Your task to perform on an android device: Open calendar and show me the third week of next month Image 0: 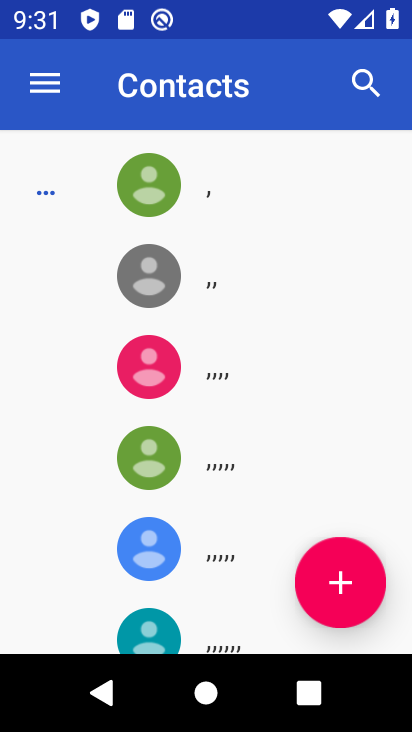
Step 0: press home button
Your task to perform on an android device: Open calendar and show me the third week of next month Image 1: 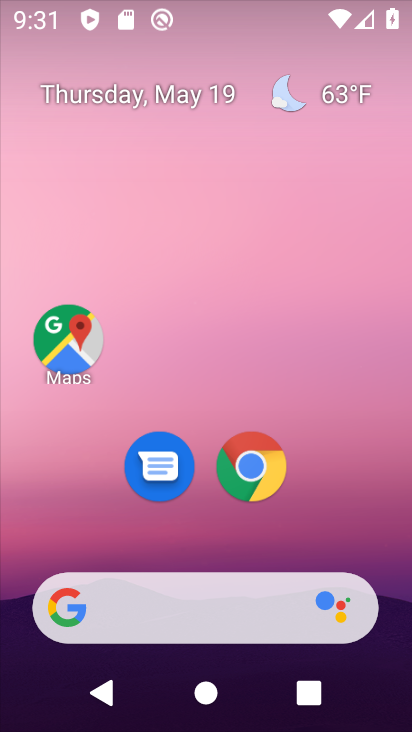
Step 1: drag from (392, 662) to (352, 123)
Your task to perform on an android device: Open calendar and show me the third week of next month Image 2: 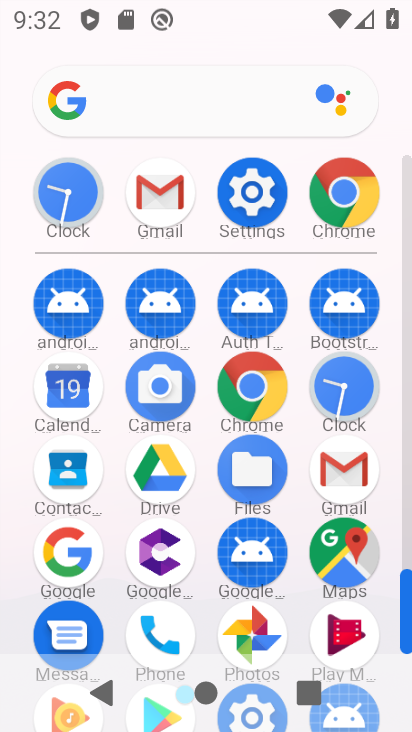
Step 2: click (71, 399)
Your task to perform on an android device: Open calendar and show me the third week of next month Image 3: 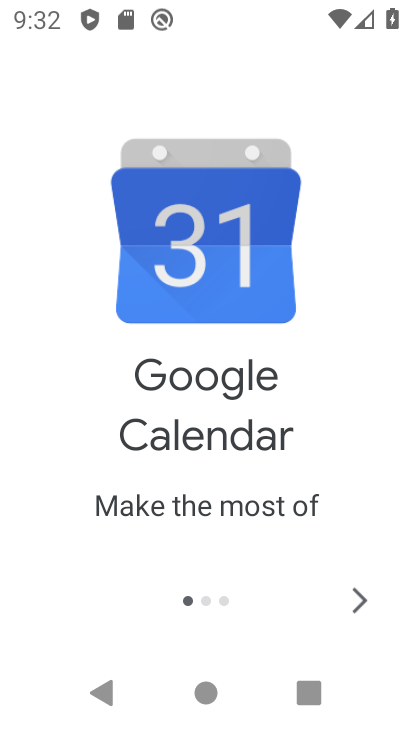
Step 3: click (357, 600)
Your task to perform on an android device: Open calendar and show me the third week of next month Image 4: 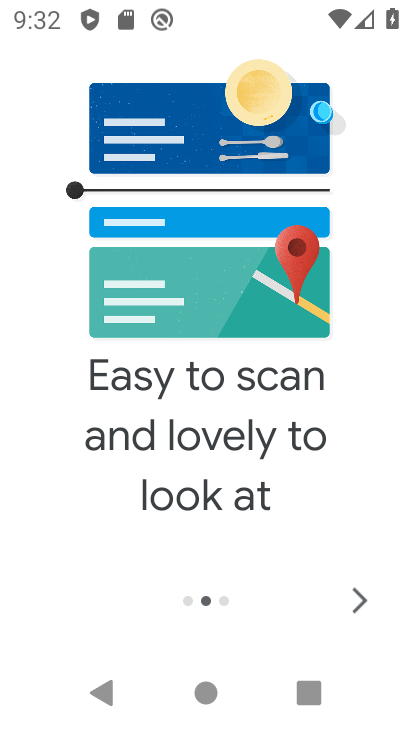
Step 4: click (358, 600)
Your task to perform on an android device: Open calendar and show me the third week of next month Image 5: 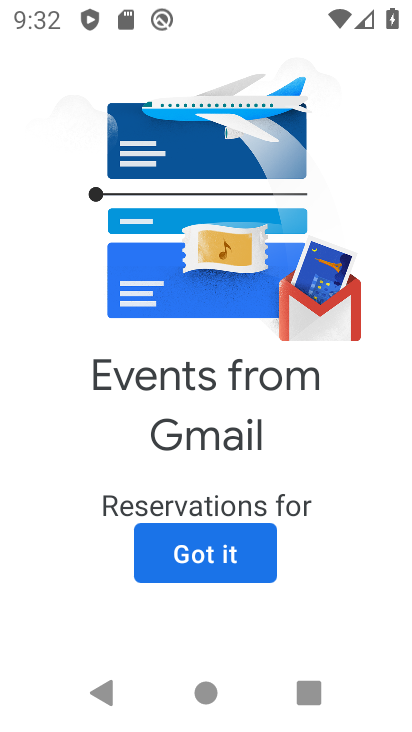
Step 5: click (204, 561)
Your task to perform on an android device: Open calendar and show me the third week of next month Image 6: 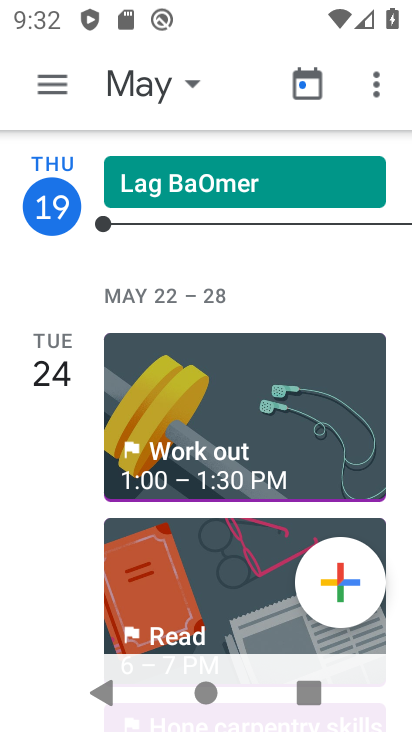
Step 6: click (147, 90)
Your task to perform on an android device: Open calendar and show me the third week of next month Image 7: 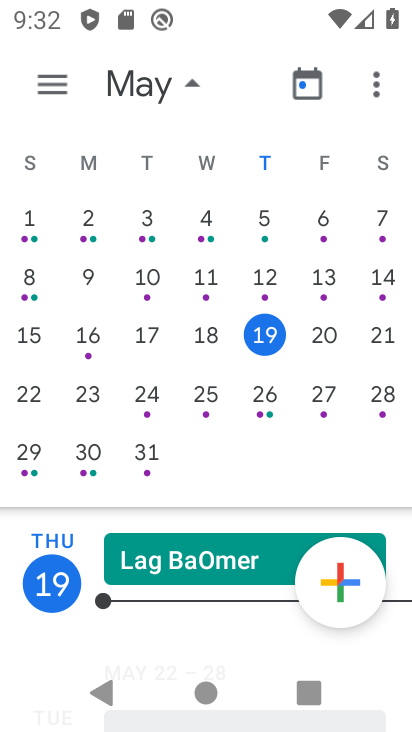
Step 7: drag from (363, 309) to (6, 325)
Your task to perform on an android device: Open calendar and show me the third week of next month Image 8: 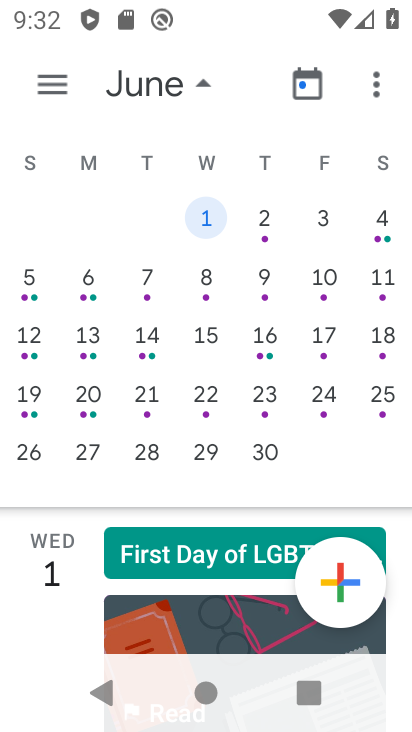
Step 8: click (94, 390)
Your task to perform on an android device: Open calendar and show me the third week of next month Image 9: 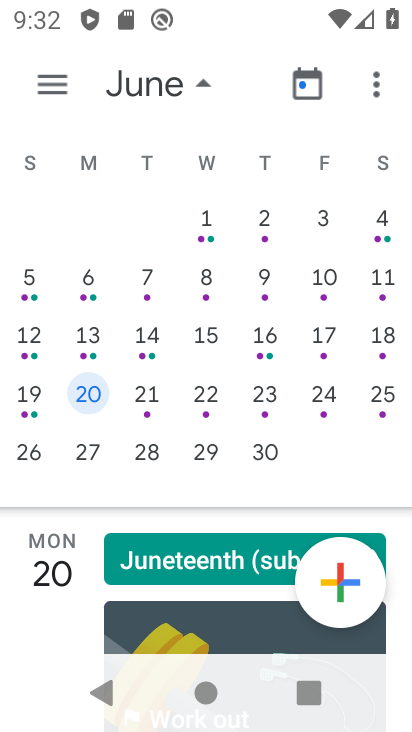
Step 9: task complete